Your task to perform on an android device: add a contact in the contacts app Image 0: 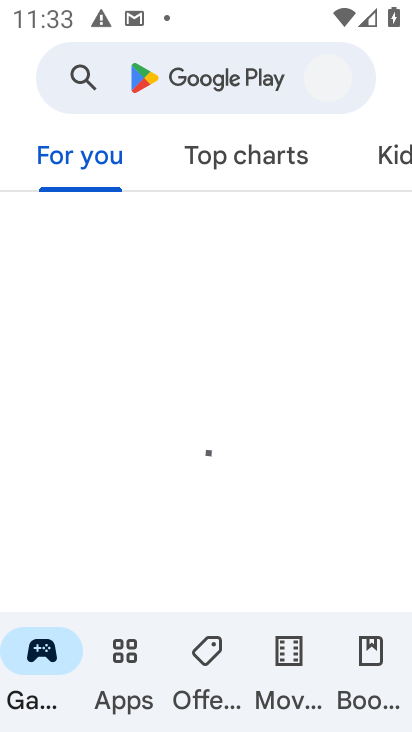
Step 0: press home button
Your task to perform on an android device: add a contact in the contacts app Image 1: 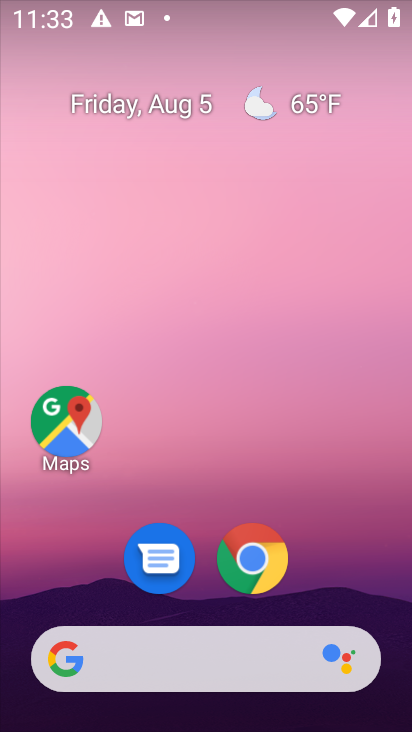
Step 1: drag from (316, 570) to (343, 164)
Your task to perform on an android device: add a contact in the contacts app Image 2: 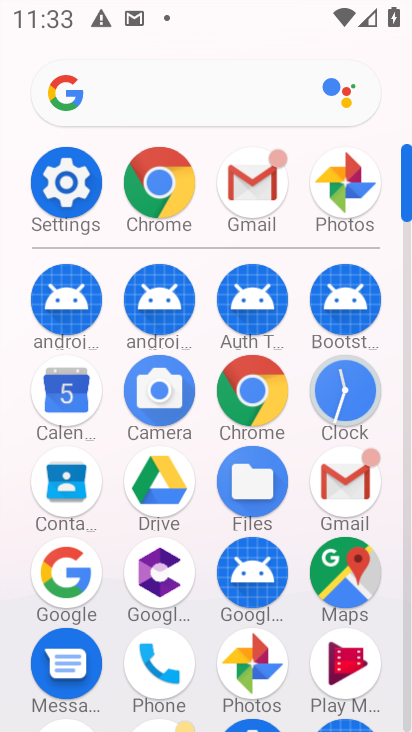
Step 2: click (74, 479)
Your task to perform on an android device: add a contact in the contacts app Image 3: 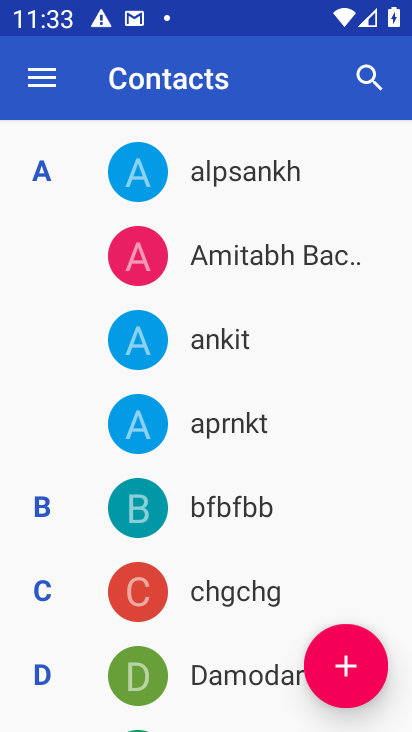
Step 3: click (352, 665)
Your task to perform on an android device: add a contact in the contacts app Image 4: 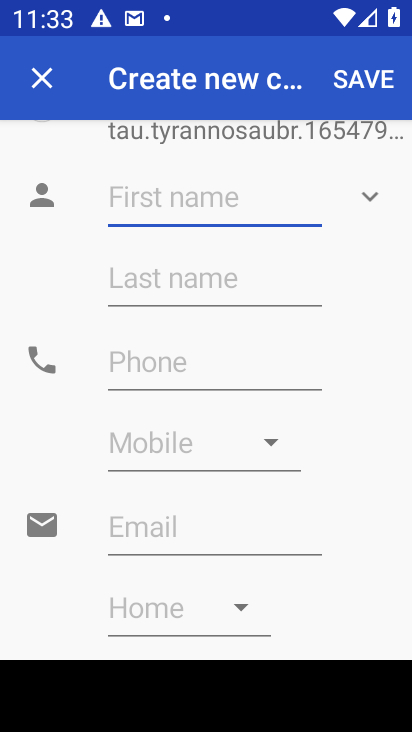
Step 4: click (288, 199)
Your task to perform on an android device: add a contact in the contacts app Image 5: 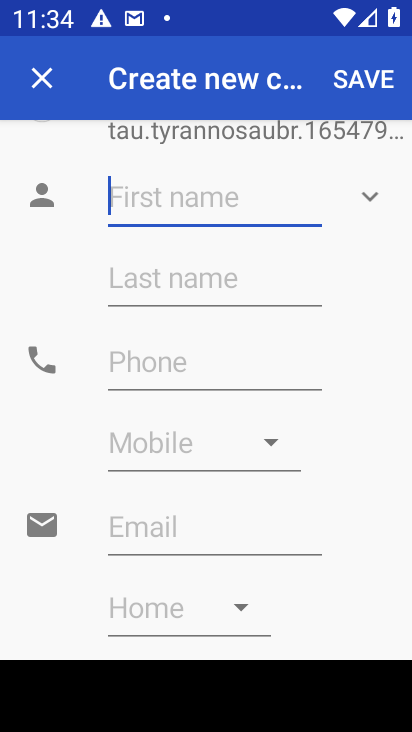
Step 5: type "lololo"
Your task to perform on an android device: add a contact in the contacts app Image 6: 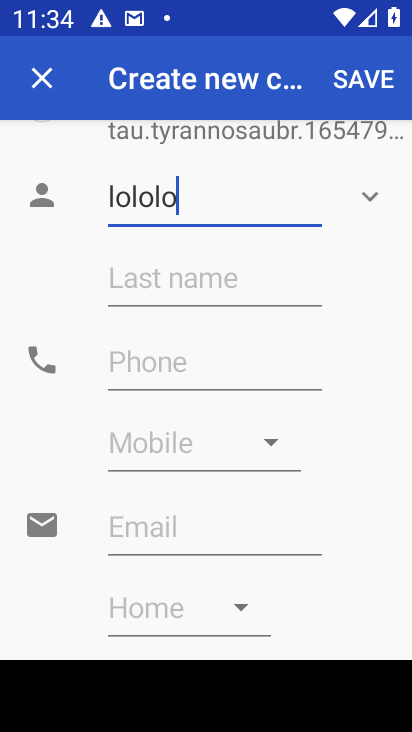
Step 6: click (244, 367)
Your task to perform on an android device: add a contact in the contacts app Image 7: 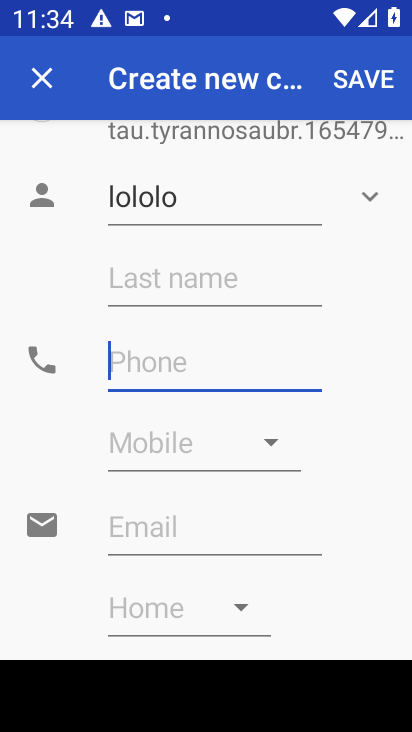
Step 7: type "123456789"
Your task to perform on an android device: add a contact in the contacts app Image 8: 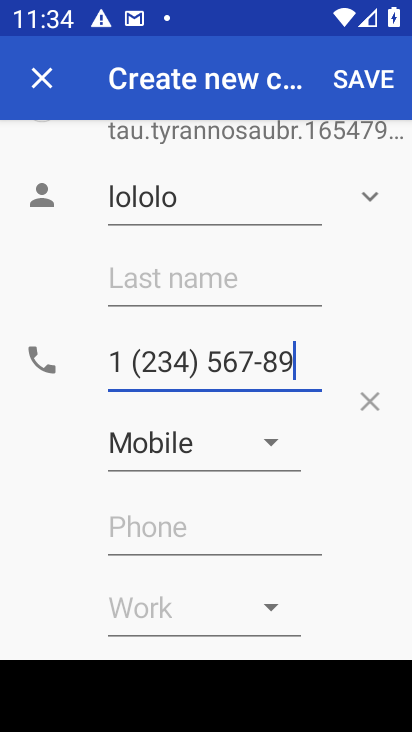
Step 8: click (380, 84)
Your task to perform on an android device: add a contact in the contacts app Image 9: 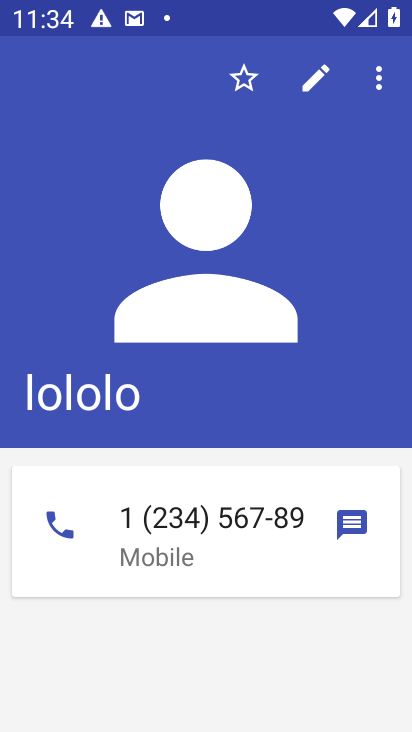
Step 9: task complete